Your task to perform on an android device: open app "Skype" (install if not already installed) Image 0: 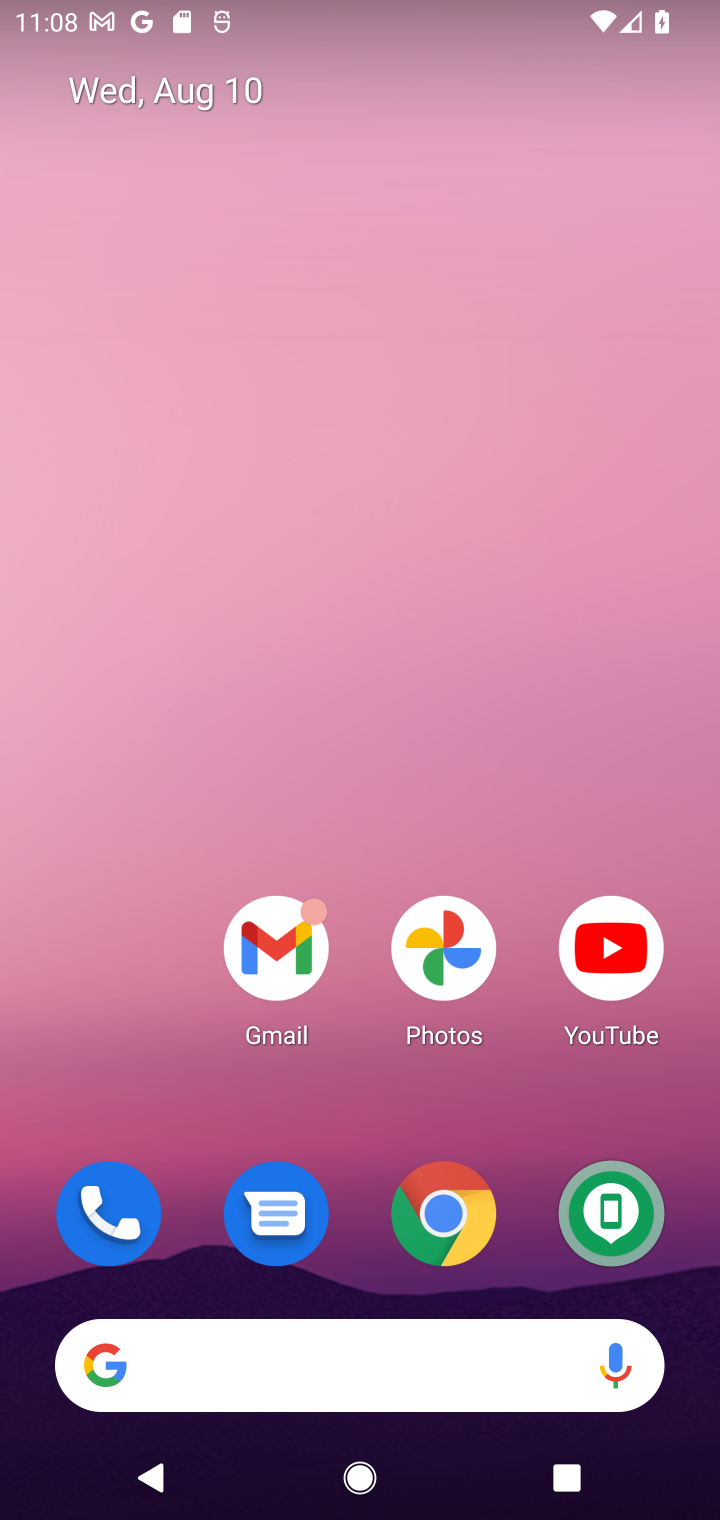
Step 0: drag from (269, 1309) to (339, 197)
Your task to perform on an android device: open app "Skype" (install if not already installed) Image 1: 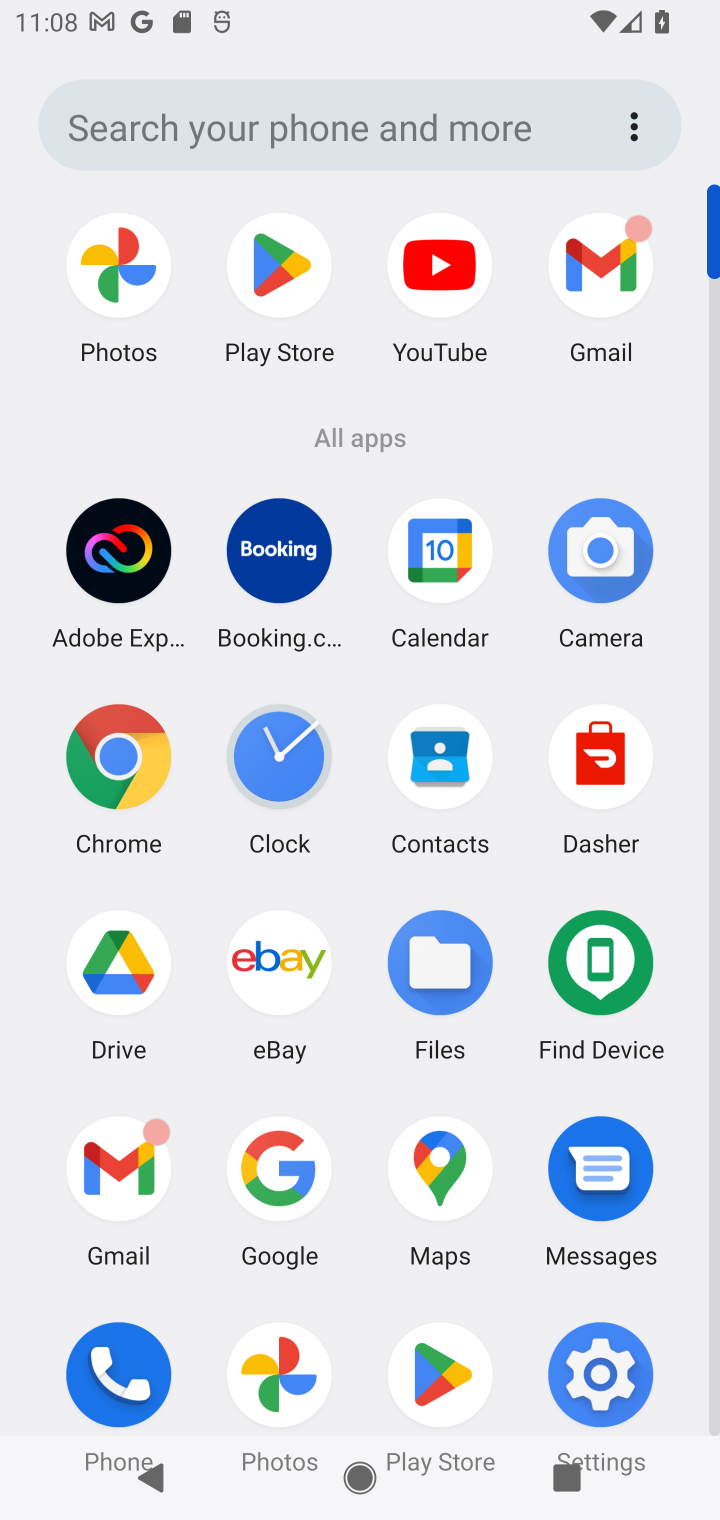
Step 1: click (283, 260)
Your task to perform on an android device: open app "Skype" (install if not already installed) Image 2: 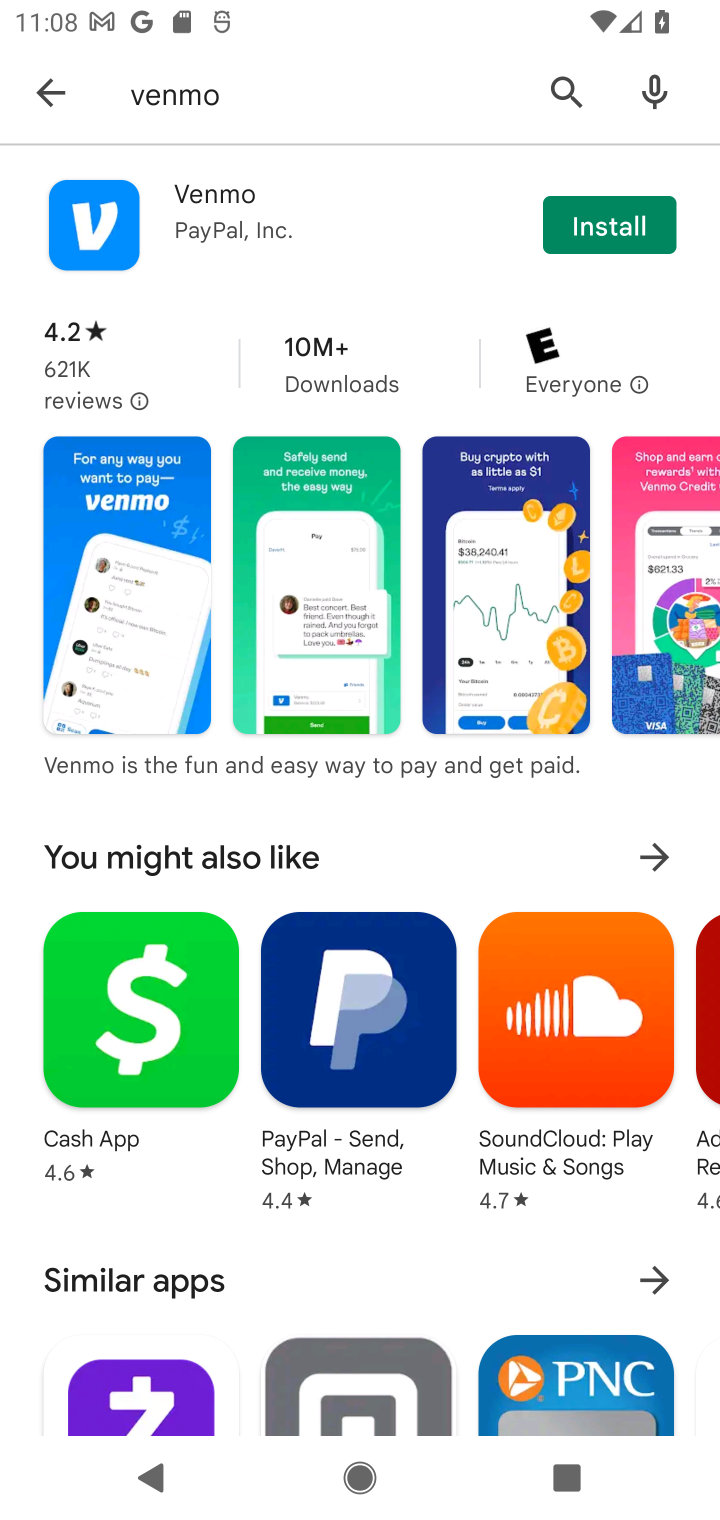
Step 2: press back button
Your task to perform on an android device: open app "Skype" (install if not already installed) Image 3: 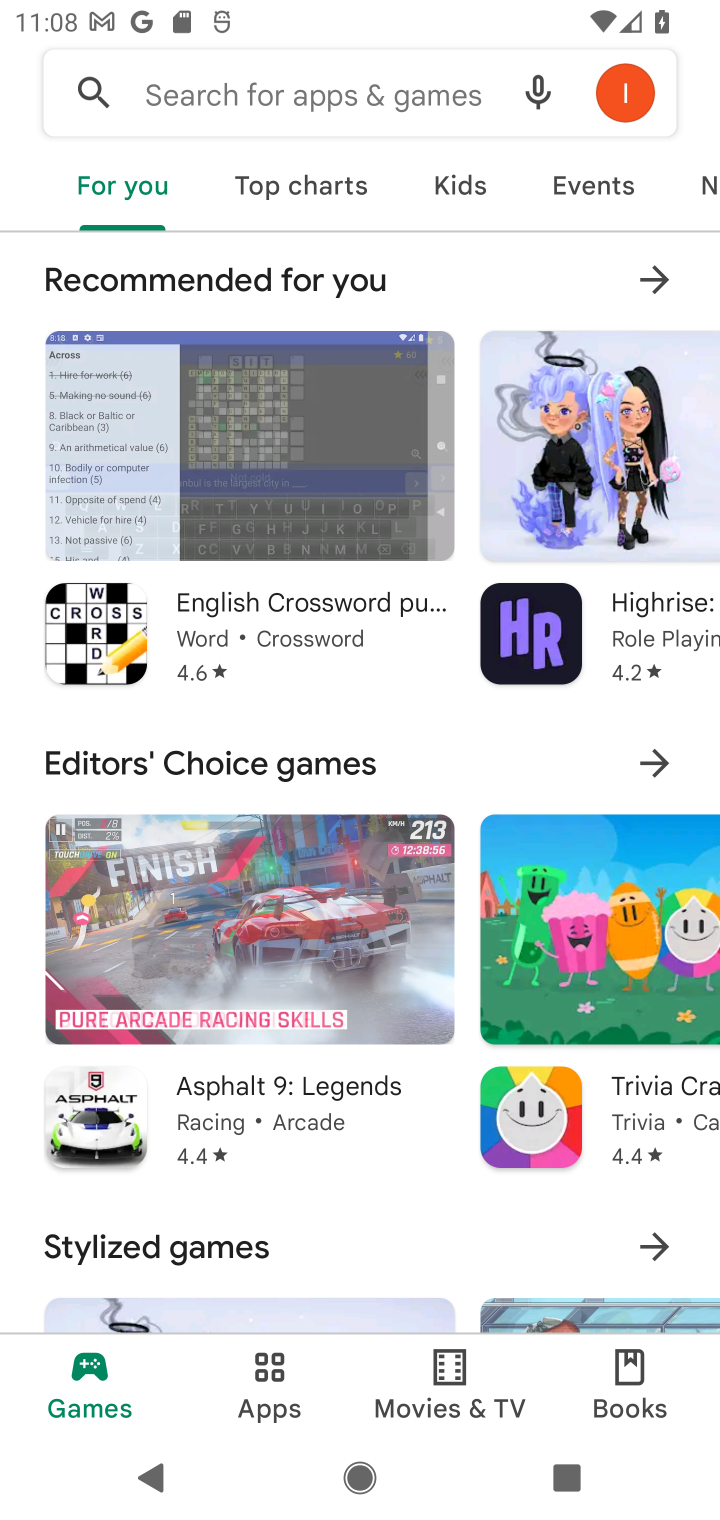
Step 3: click (342, 88)
Your task to perform on an android device: open app "Skype" (install if not already installed) Image 4: 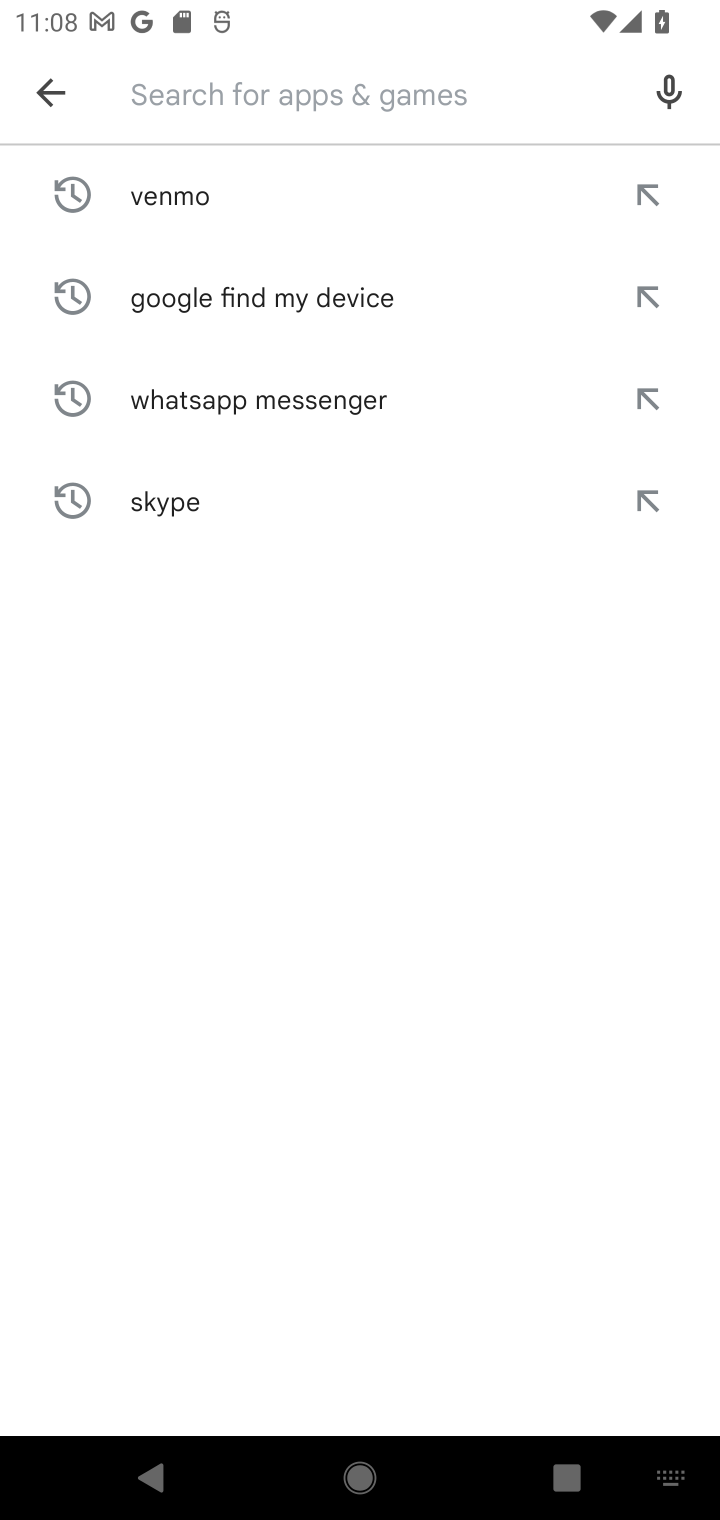
Step 4: type "Skype"
Your task to perform on an android device: open app "Skype" (install if not already installed) Image 5: 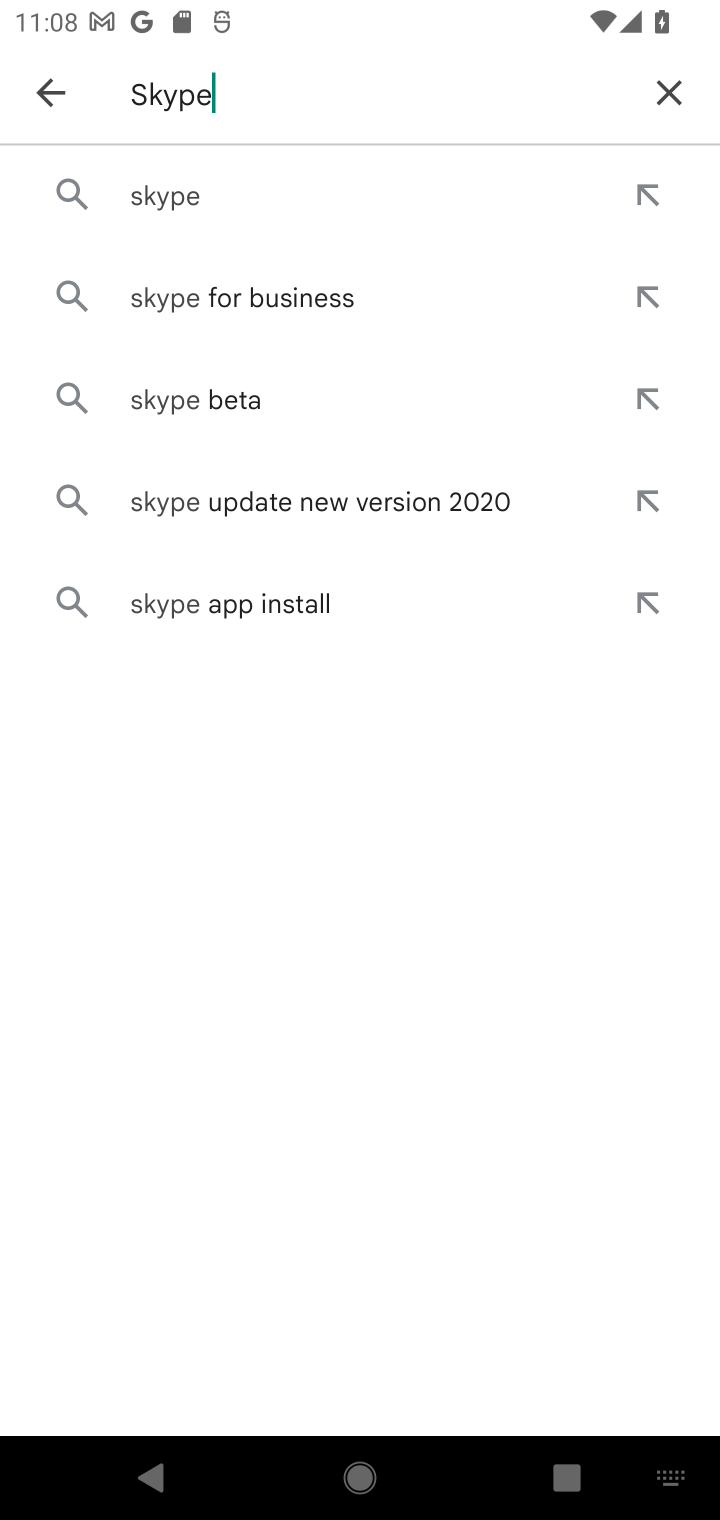
Step 5: click (150, 201)
Your task to perform on an android device: open app "Skype" (install if not already installed) Image 6: 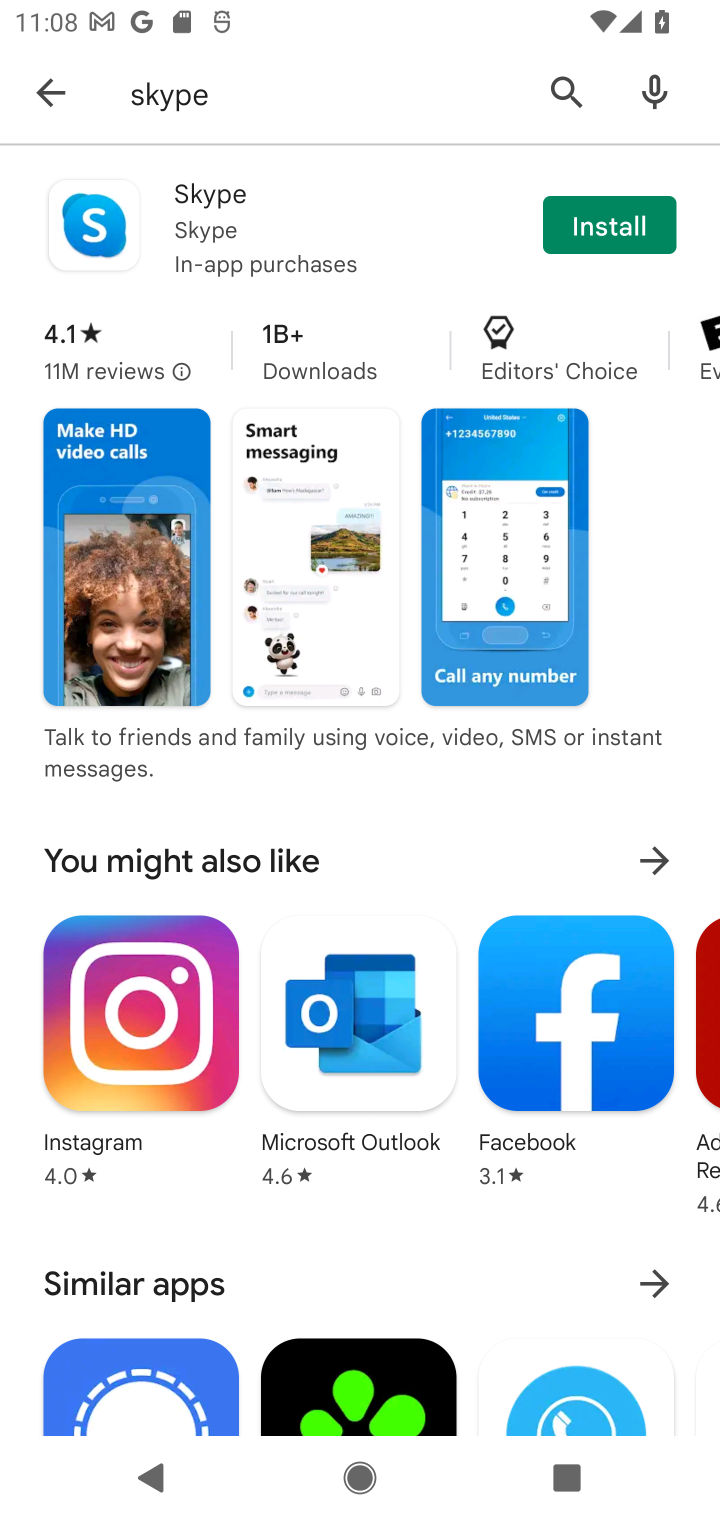
Step 6: click (626, 235)
Your task to perform on an android device: open app "Skype" (install if not already installed) Image 7: 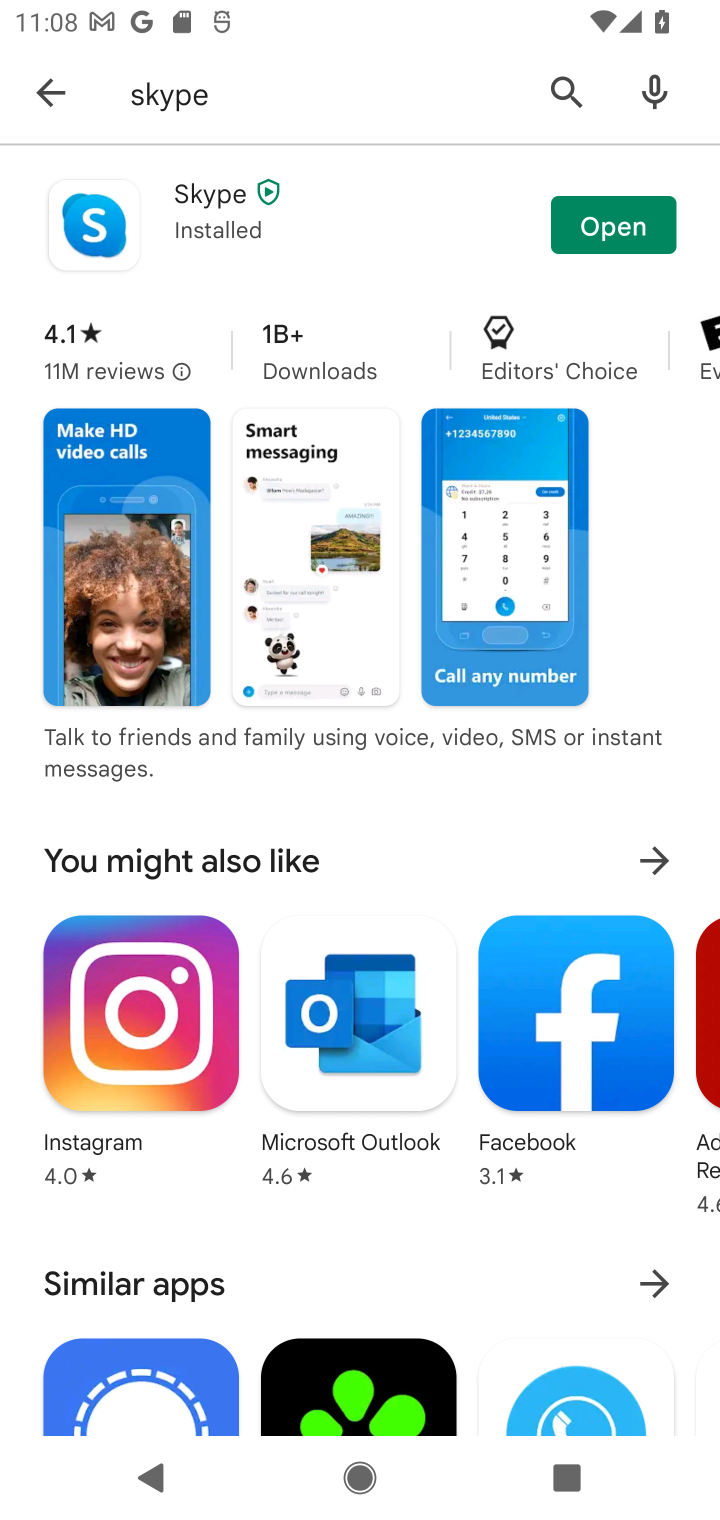
Step 7: click (599, 239)
Your task to perform on an android device: open app "Skype" (install if not already installed) Image 8: 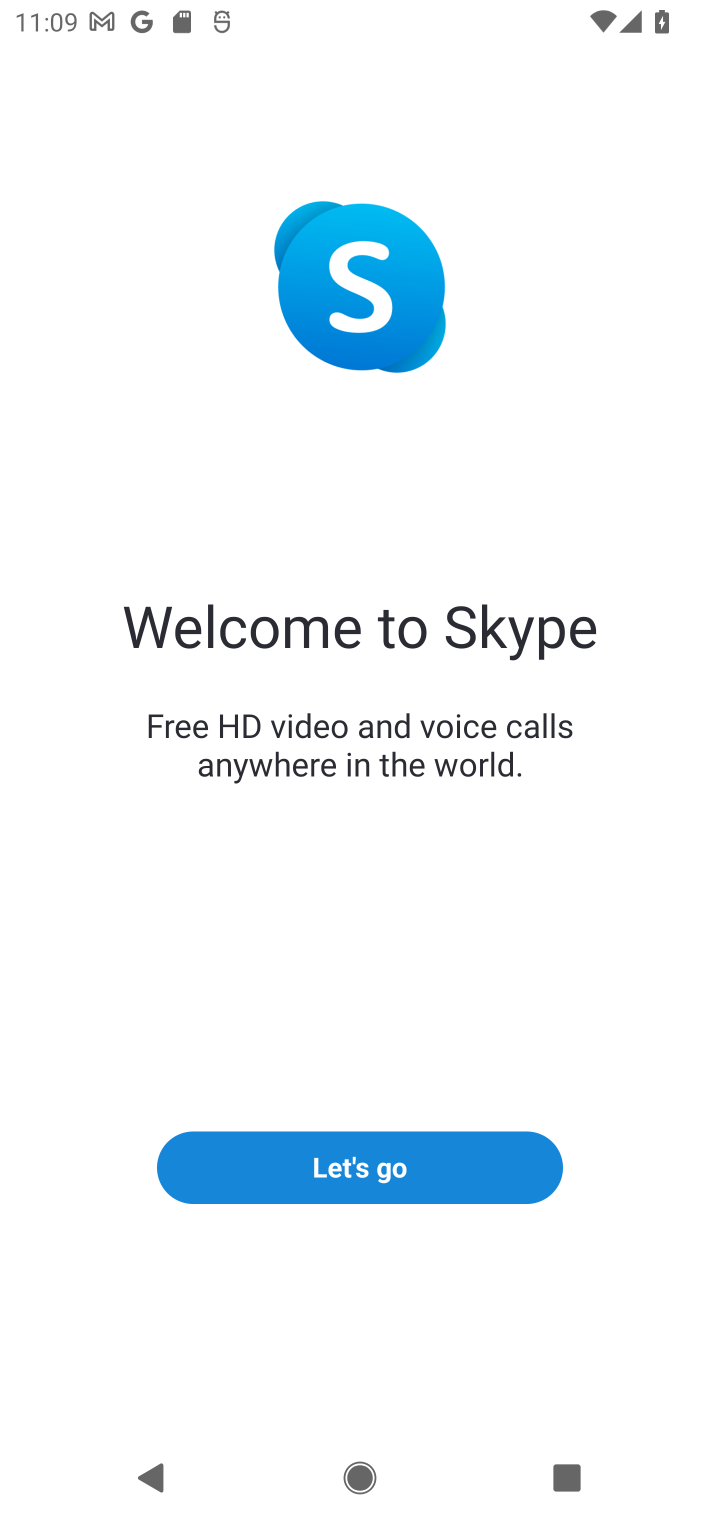
Step 8: click (372, 1168)
Your task to perform on an android device: open app "Skype" (install if not already installed) Image 9: 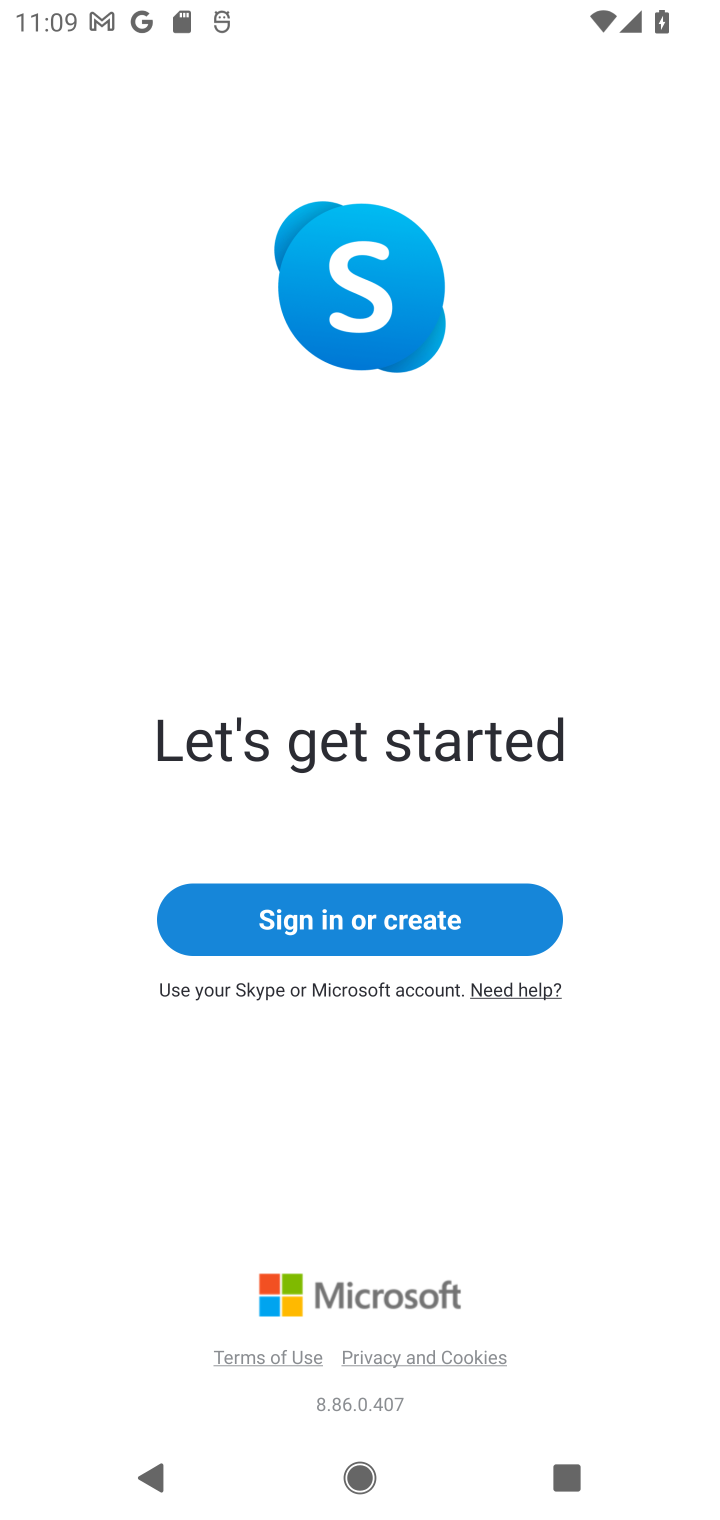
Step 9: task complete